Your task to perform on an android device: star an email in the gmail app Image 0: 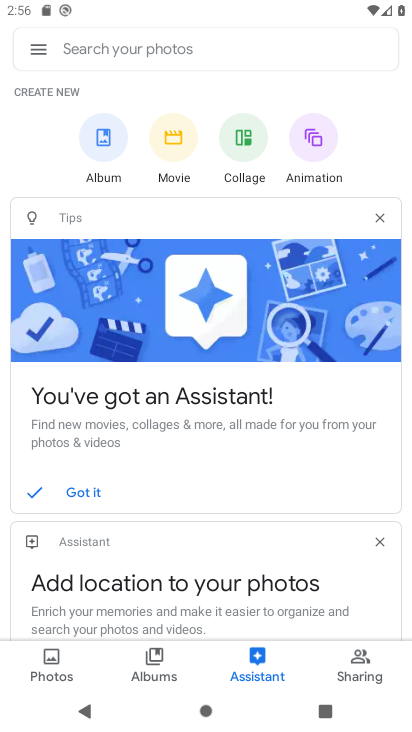
Step 0: press home button
Your task to perform on an android device: star an email in the gmail app Image 1: 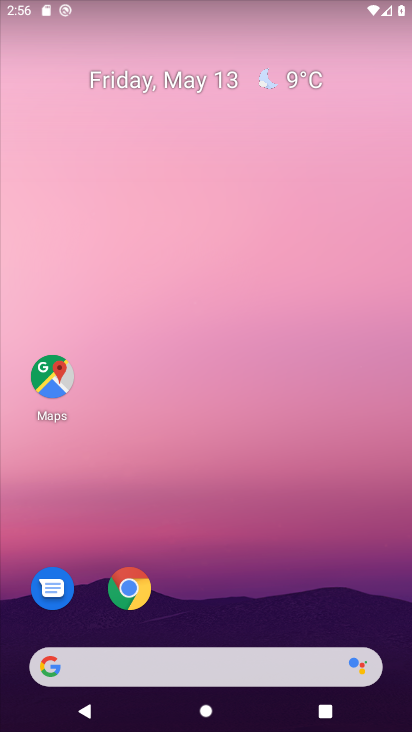
Step 1: drag from (286, 546) to (173, 40)
Your task to perform on an android device: star an email in the gmail app Image 2: 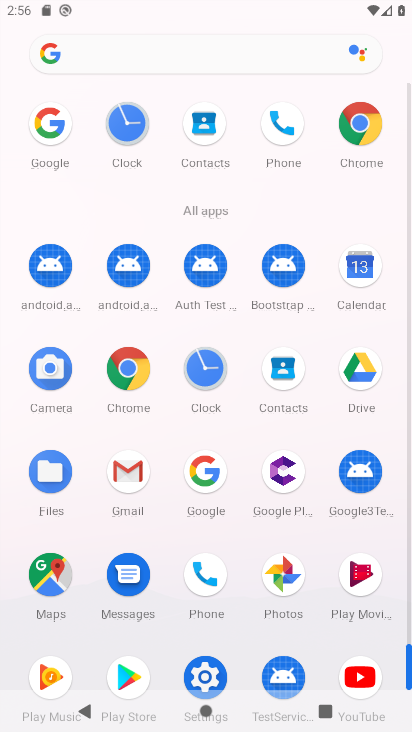
Step 2: click (119, 476)
Your task to perform on an android device: star an email in the gmail app Image 3: 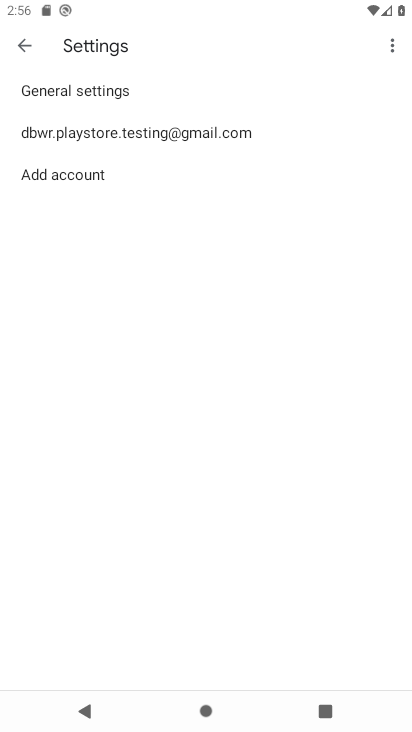
Step 3: click (28, 46)
Your task to perform on an android device: star an email in the gmail app Image 4: 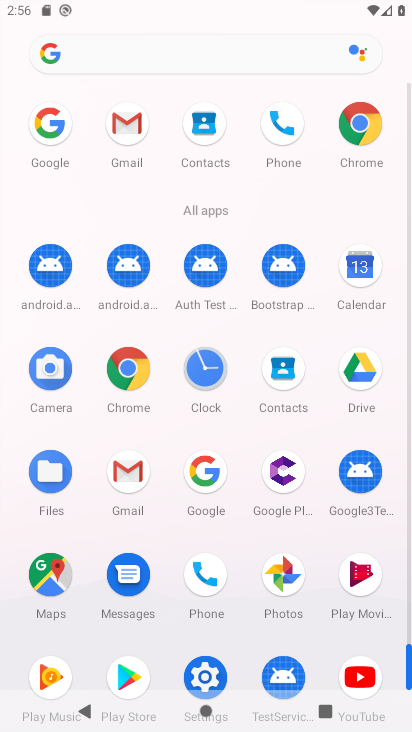
Step 4: click (121, 477)
Your task to perform on an android device: star an email in the gmail app Image 5: 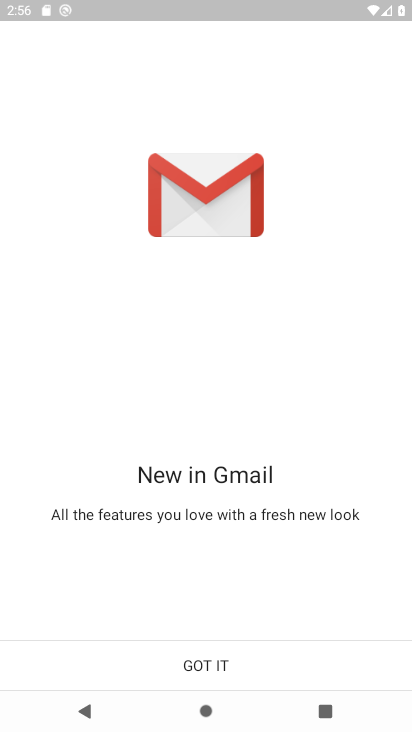
Step 5: click (239, 651)
Your task to perform on an android device: star an email in the gmail app Image 6: 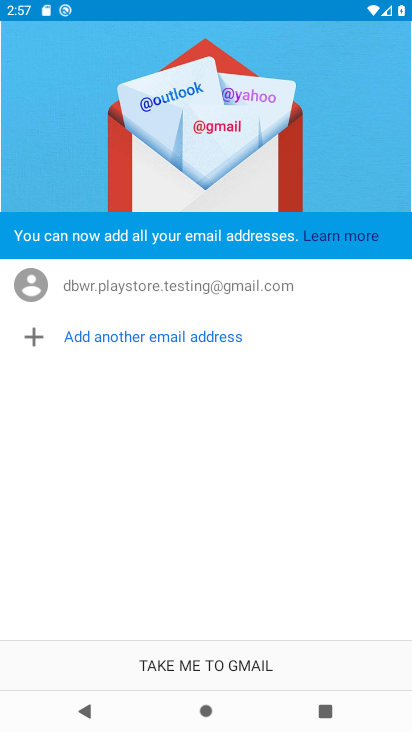
Step 6: click (248, 664)
Your task to perform on an android device: star an email in the gmail app Image 7: 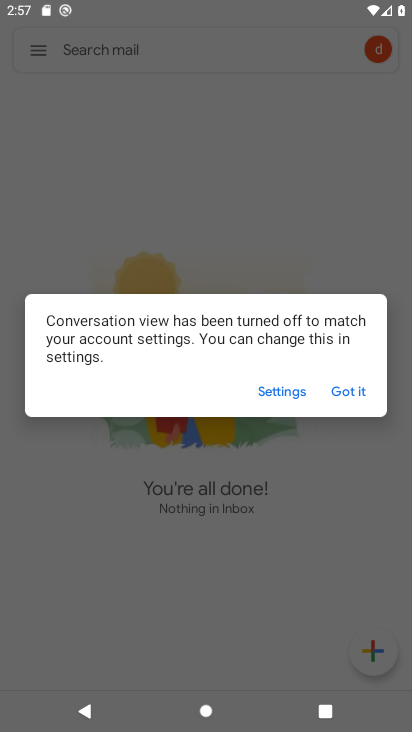
Step 7: click (340, 390)
Your task to perform on an android device: star an email in the gmail app Image 8: 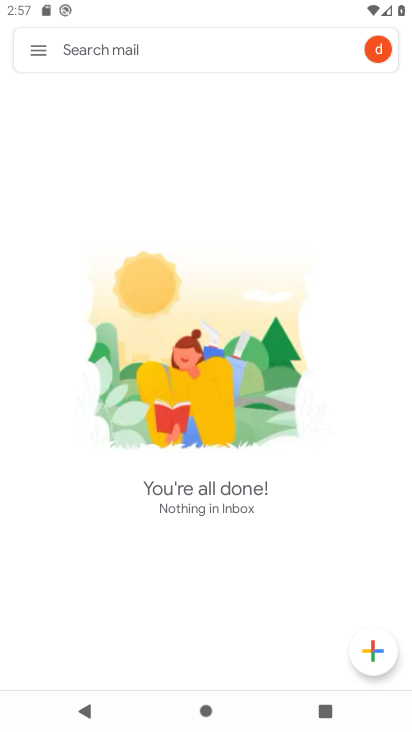
Step 8: click (36, 50)
Your task to perform on an android device: star an email in the gmail app Image 9: 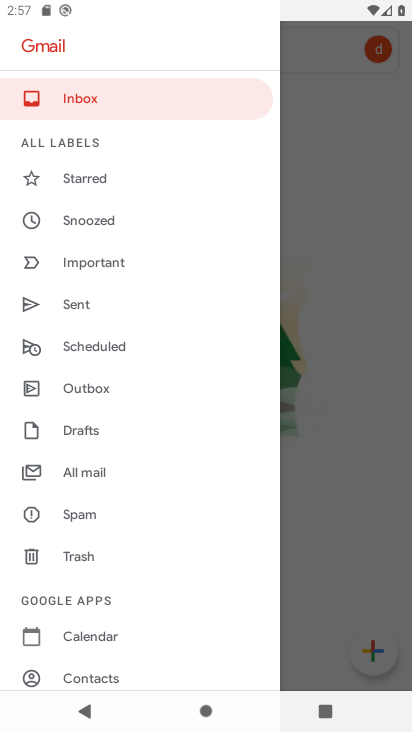
Step 9: click (67, 481)
Your task to perform on an android device: star an email in the gmail app Image 10: 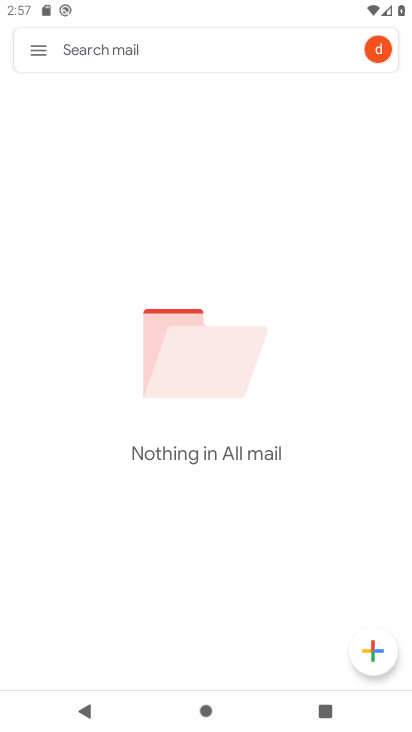
Step 10: task complete